Your task to perform on an android device: toggle improve location accuracy Image 0: 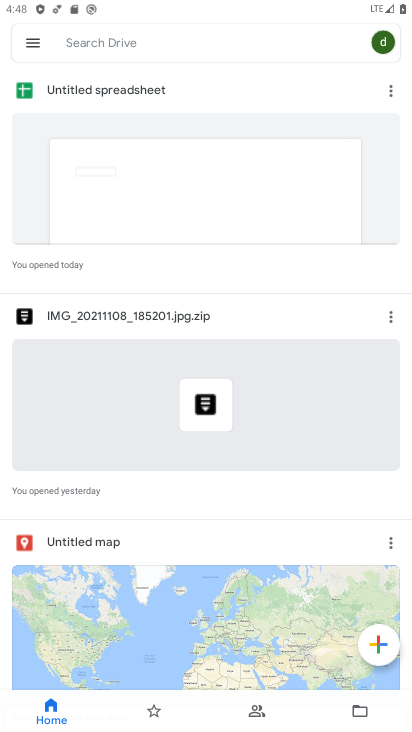
Step 0: press home button
Your task to perform on an android device: toggle improve location accuracy Image 1: 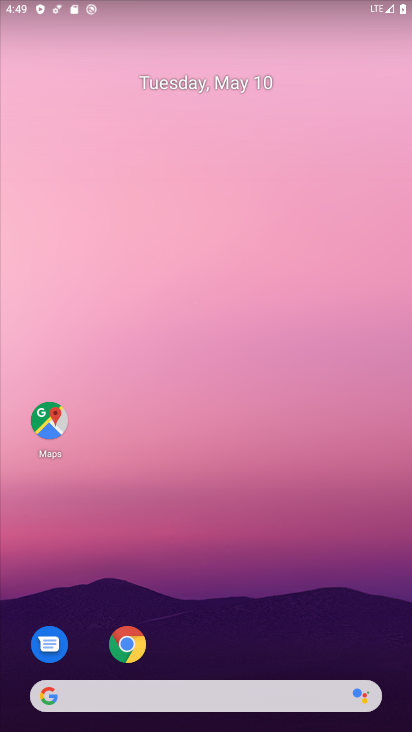
Step 1: drag from (223, 623) to (279, 94)
Your task to perform on an android device: toggle improve location accuracy Image 2: 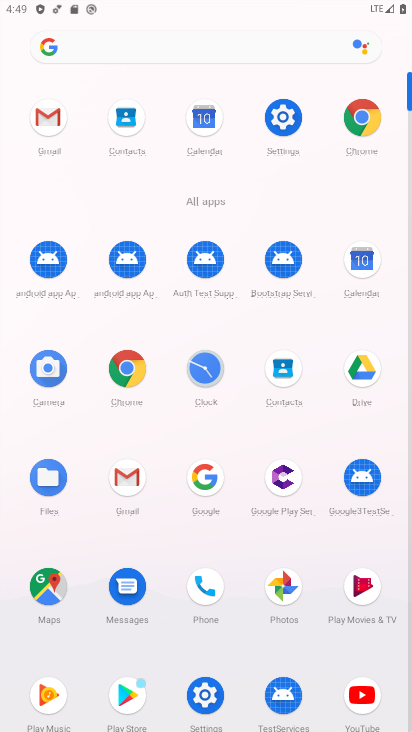
Step 2: click (282, 115)
Your task to perform on an android device: toggle improve location accuracy Image 3: 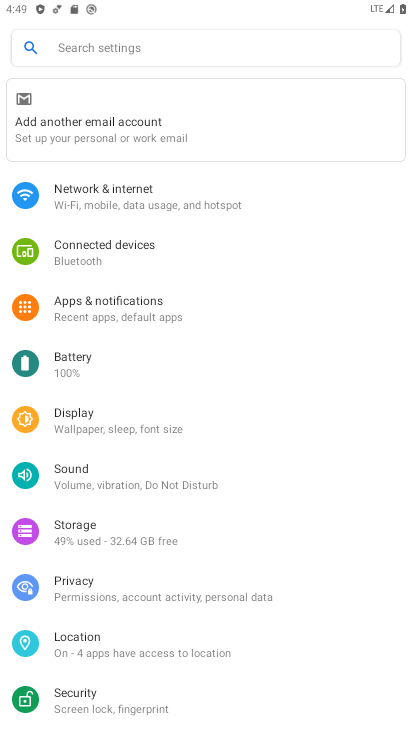
Step 3: click (122, 642)
Your task to perform on an android device: toggle improve location accuracy Image 4: 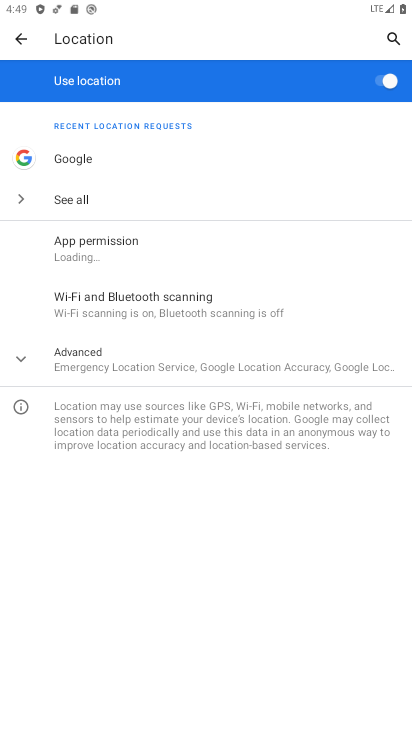
Step 4: click (22, 357)
Your task to perform on an android device: toggle improve location accuracy Image 5: 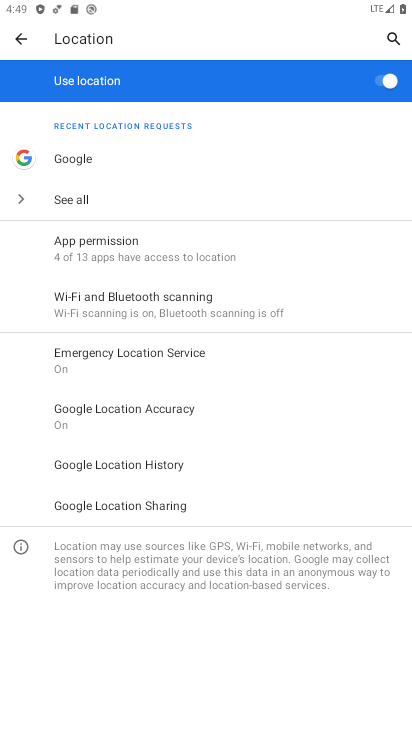
Step 5: click (126, 411)
Your task to perform on an android device: toggle improve location accuracy Image 6: 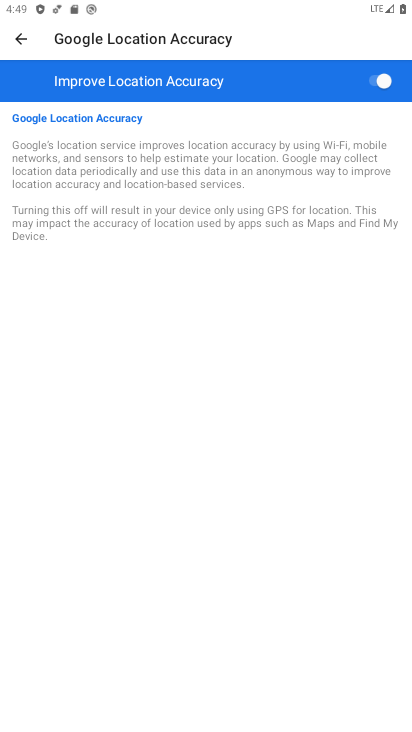
Step 6: click (369, 77)
Your task to perform on an android device: toggle improve location accuracy Image 7: 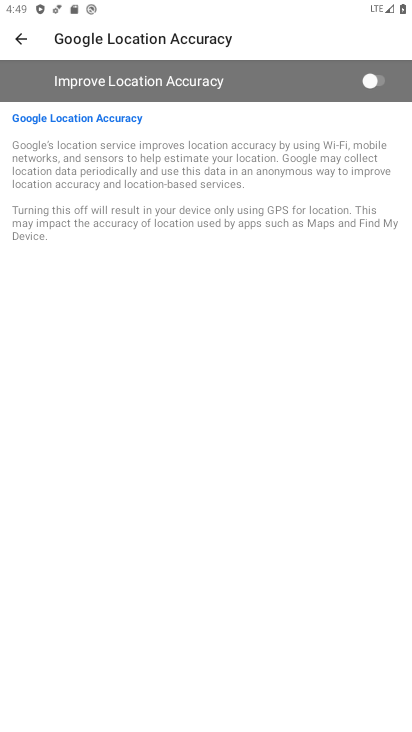
Step 7: task complete